Your task to perform on an android device: Check the weather Image 0: 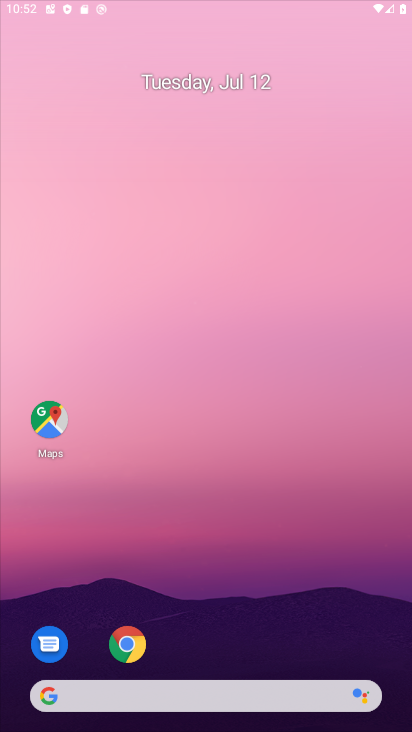
Step 0: click (236, 149)
Your task to perform on an android device: Check the weather Image 1: 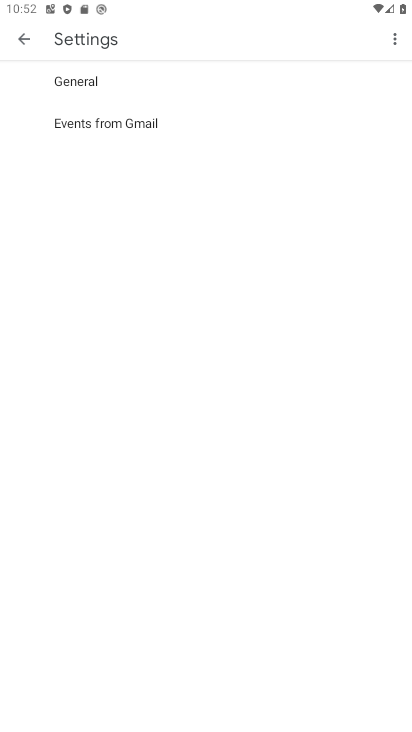
Step 1: press home button
Your task to perform on an android device: Check the weather Image 2: 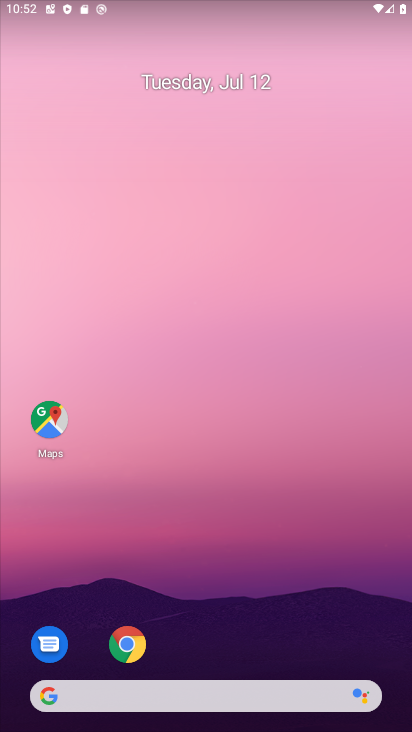
Step 2: click (298, 690)
Your task to perform on an android device: Check the weather Image 3: 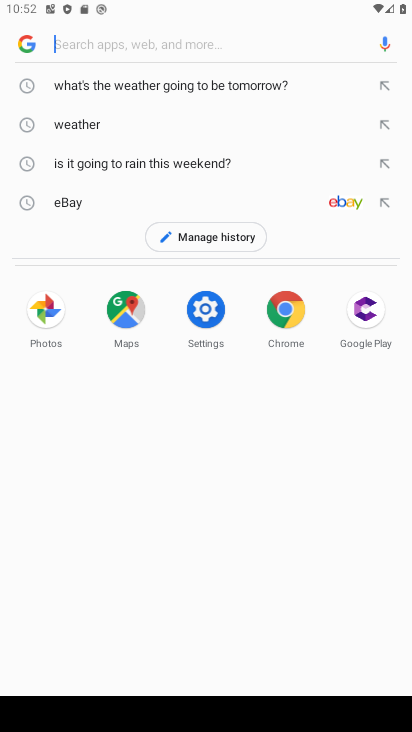
Step 3: click (103, 125)
Your task to perform on an android device: Check the weather Image 4: 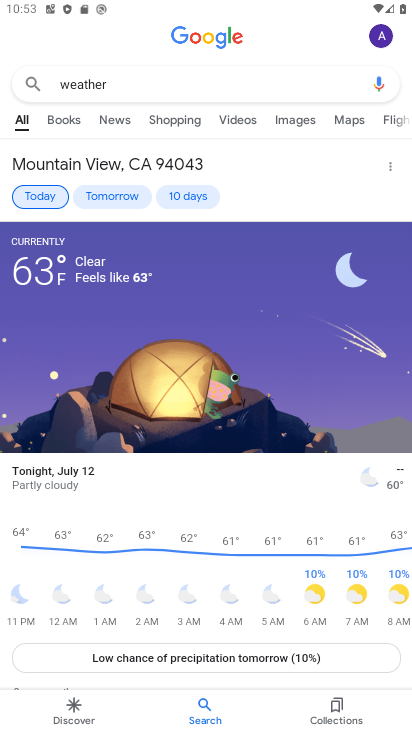
Step 4: task complete